Your task to perform on an android device: Open calendar and show me the first week of next month Image 0: 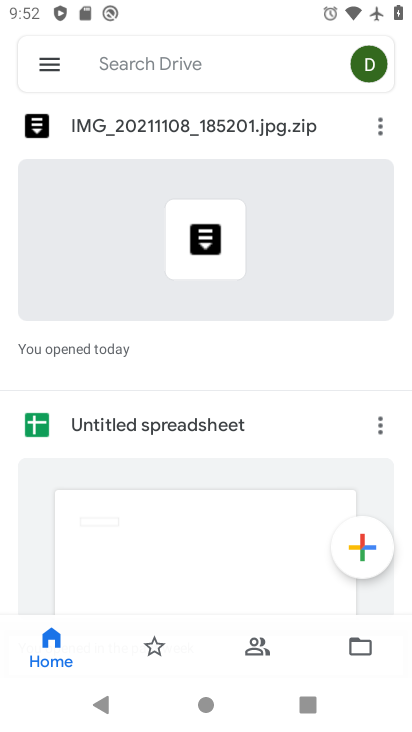
Step 0: press back button
Your task to perform on an android device: Open calendar and show me the first week of next month Image 1: 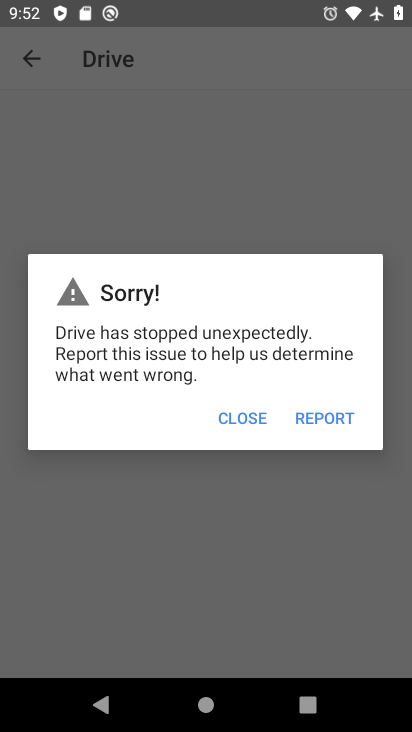
Step 1: click (251, 412)
Your task to perform on an android device: Open calendar and show me the first week of next month Image 2: 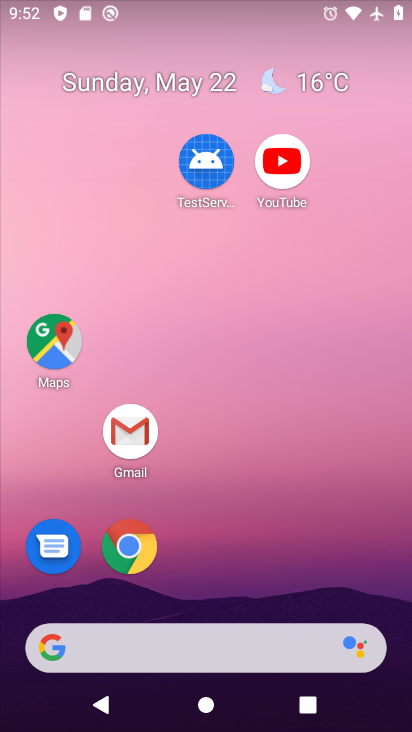
Step 2: drag from (247, 612) to (82, 26)
Your task to perform on an android device: Open calendar and show me the first week of next month Image 3: 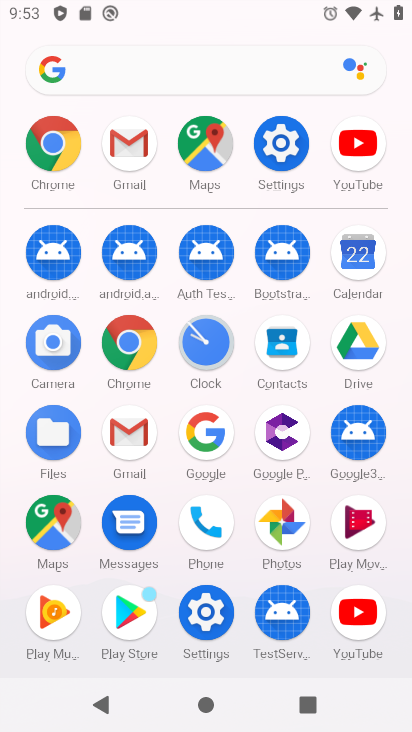
Step 3: click (354, 263)
Your task to perform on an android device: Open calendar and show me the first week of next month Image 4: 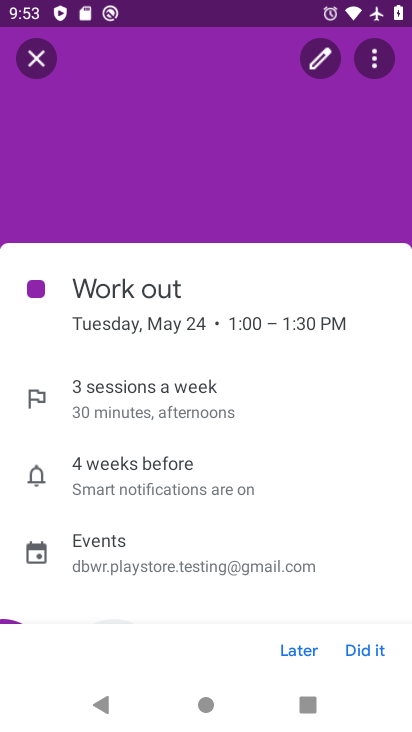
Step 4: click (308, 635)
Your task to perform on an android device: Open calendar and show me the first week of next month Image 5: 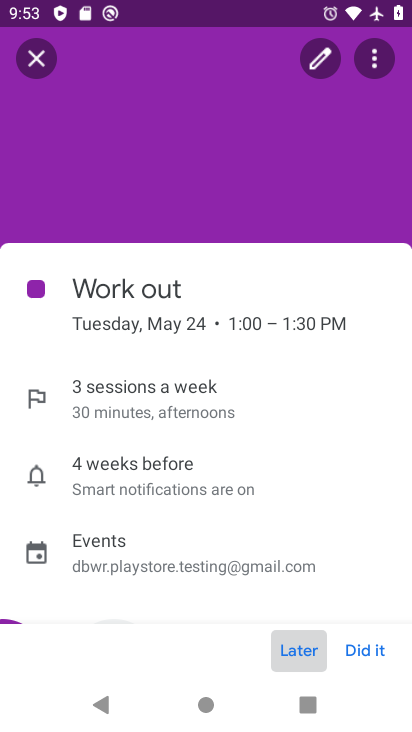
Step 5: click (304, 657)
Your task to perform on an android device: Open calendar and show me the first week of next month Image 6: 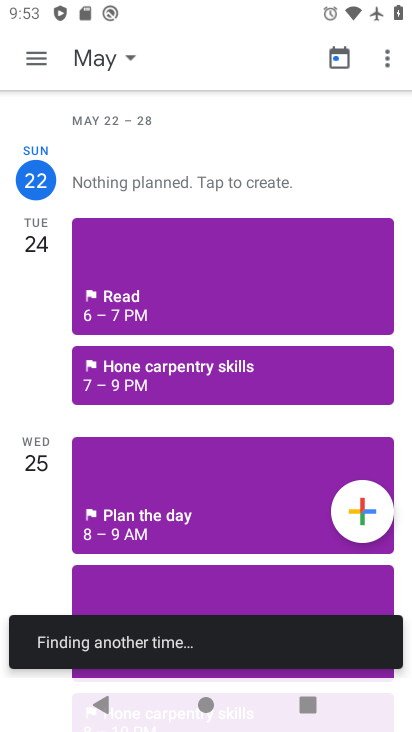
Step 6: click (138, 51)
Your task to perform on an android device: Open calendar and show me the first week of next month Image 7: 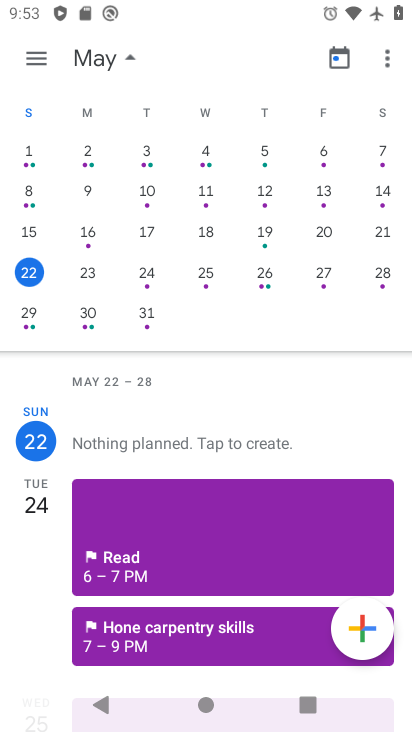
Step 7: drag from (274, 225) to (108, 267)
Your task to perform on an android device: Open calendar and show me the first week of next month Image 8: 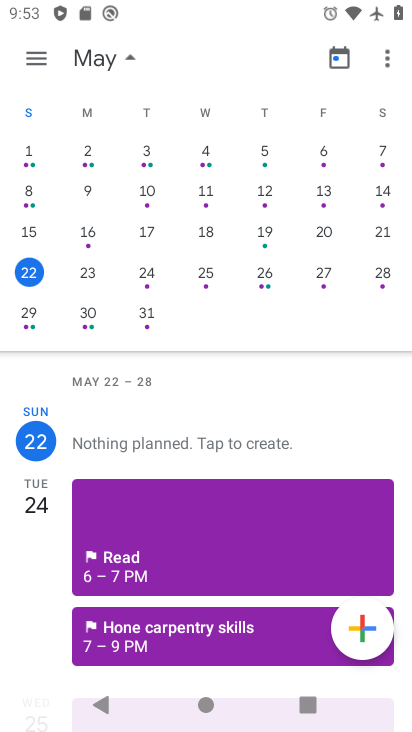
Step 8: drag from (321, 212) to (157, 330)
Your task to perform on an android device: Open calendar and show me the first week of next month Image 9: 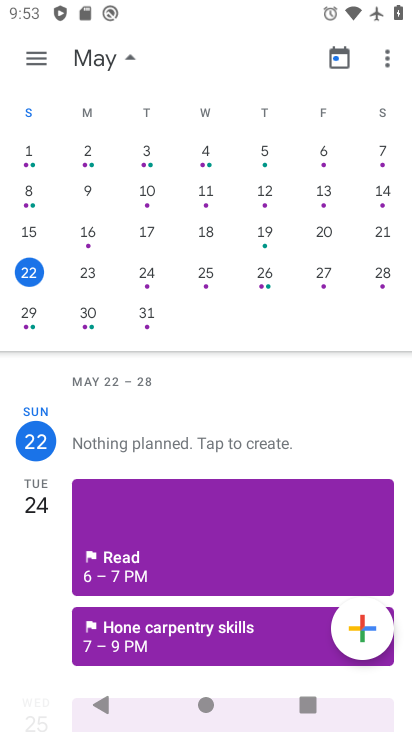
Step 9: drag from (282, 178) to (4, 298)
Your task to perform on an android device: Open calendar and show me the first week of next month Image 10: 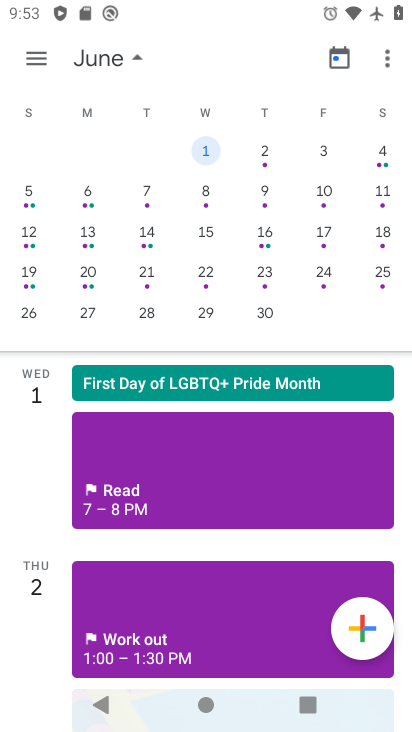
Step 10: click (280, 204)
Your task to perform on an android device: Open calendar and show me the first week of next month Image 11: 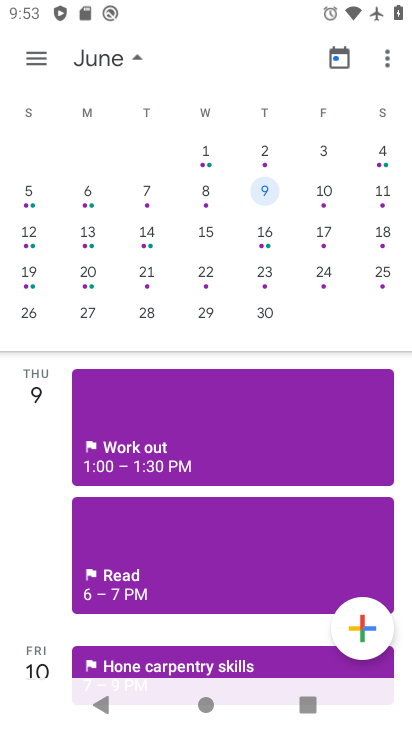
Step 11: click (198, 149)
Your task to perform on an android device: Open calendar and show me the first week of next month Image 12: 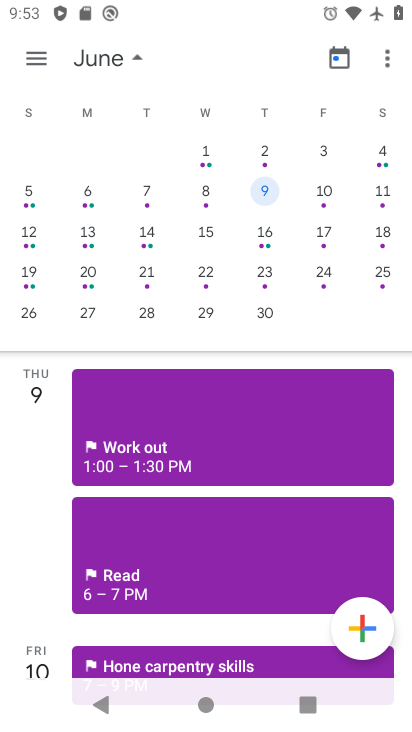
Step 12: click (198, 149)
Your task to perform on an android device: Open calendar and show me the first week of next month Image 13: 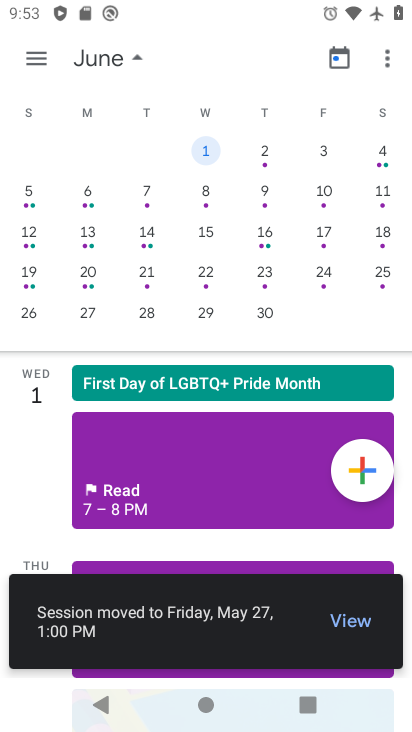
Step 13: click (202, 150)
Your task to perform on an android device: Open calendar and show me the first week of next month Image 14: 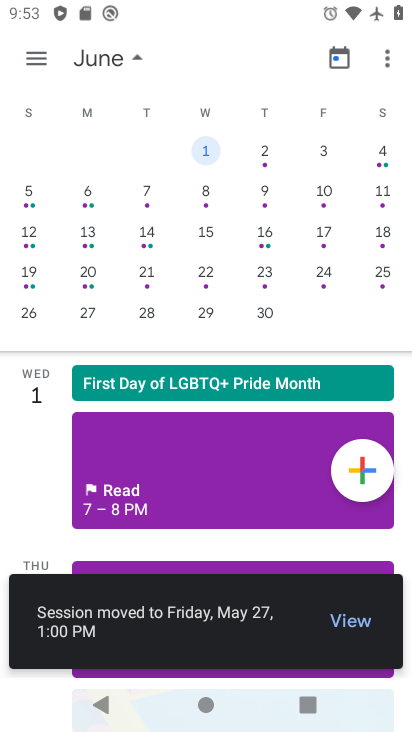
Step 14: task complete